Your task to perform on an android device: check data usage Image 0: 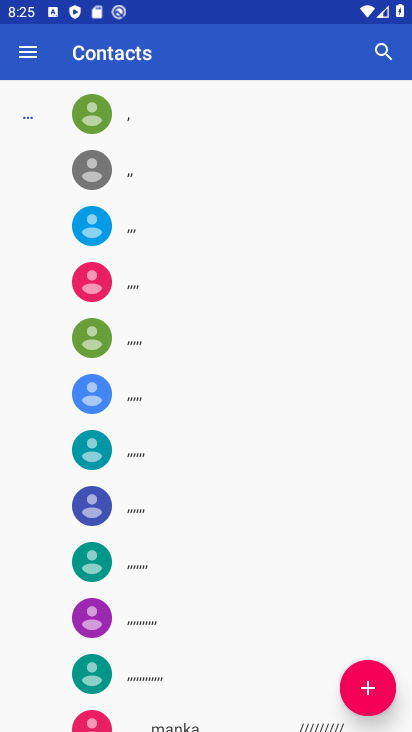
Step 0: press home button
Your task to perform on an android device: check data usage Image 1: 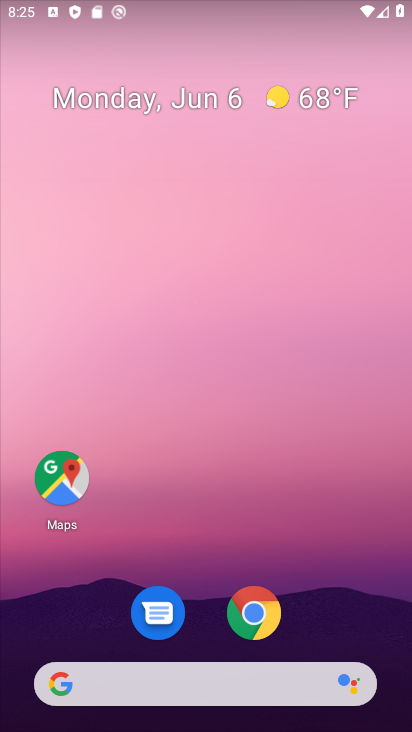
Step 1: drag from (386, 658) to (251, 4)
Your task to perform on an android device: check data usage Image 2: 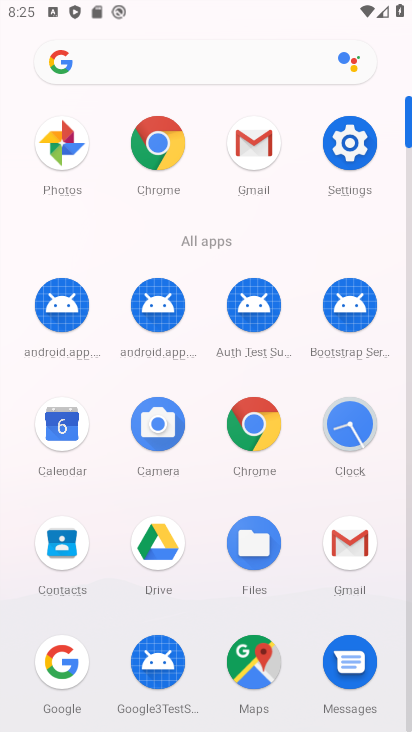
Step 2: click (350, 153)
Your task to perform on an android device: check data usage Image 3: 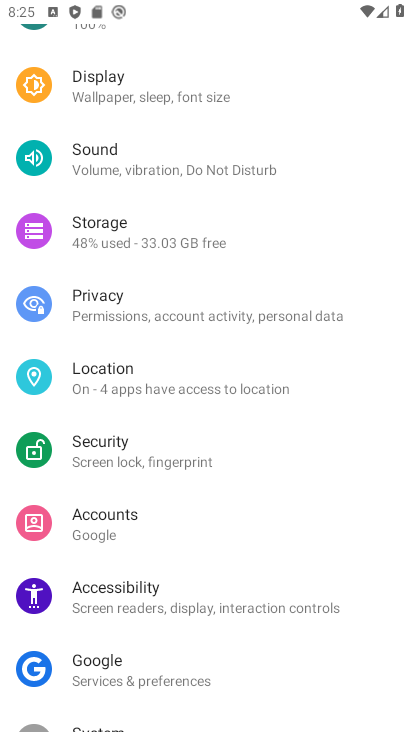
Step 3: drag from (331, 77) to (357, 550)
Your task to perform on an android device: check data usage Image 4: 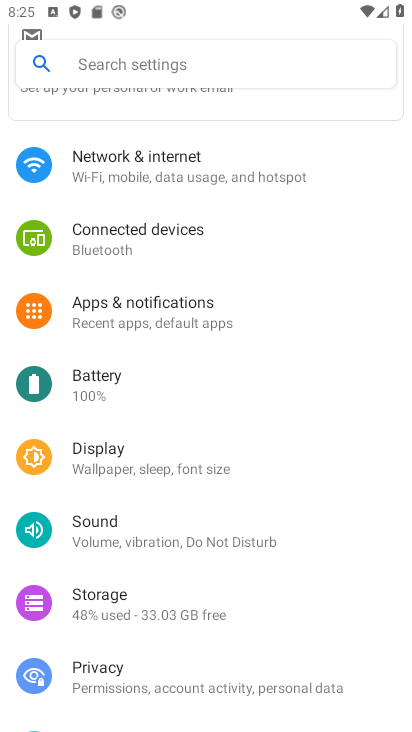
Step 4: click (151, 175)
Your task to perform on an android device: check data usage Image 5: 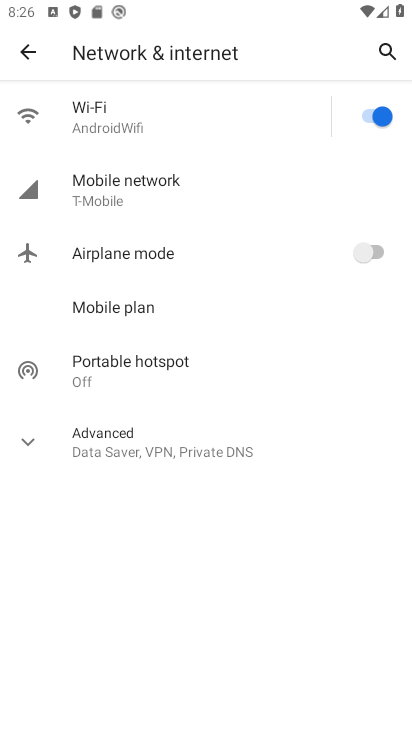
Step 5: click (128, 194)
Your task to perform on an android device: check data usage Image 6: 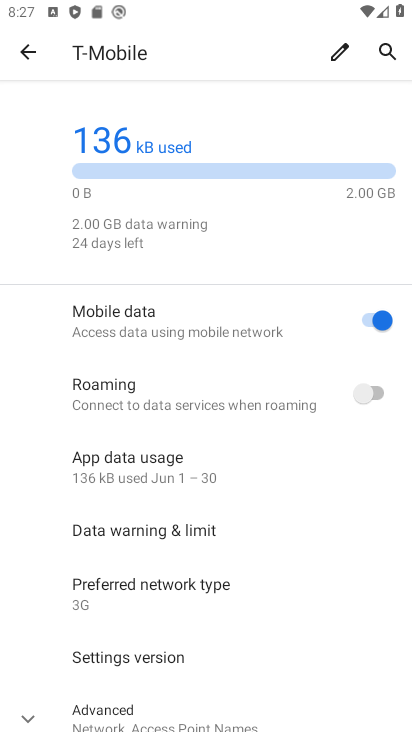
Step 6: task complete